Your task to perform on an android device: Play the last video I watched on Youtube Image 0: 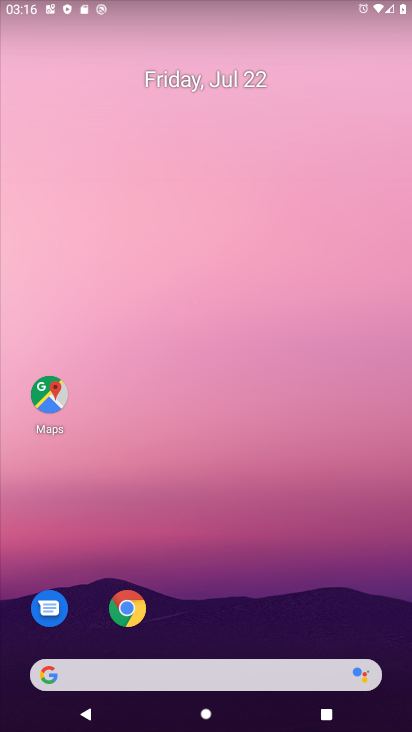
Step 0: drag from (313, 615) to (249, 29)
Your task to perform on an android device: Play the last video I watched on Youtube Image 1: 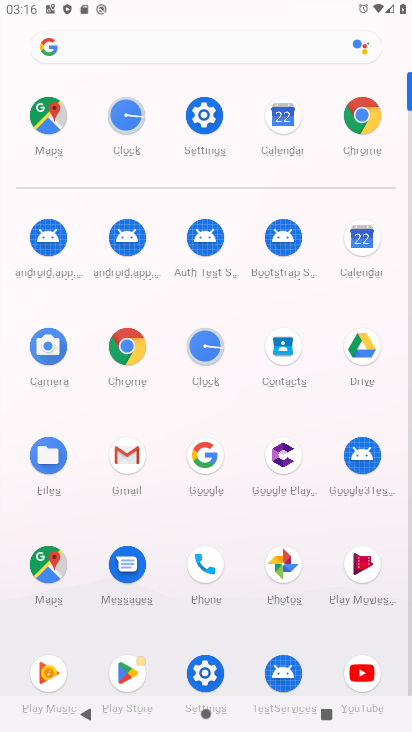
Step 1: click (367, 680)
Your task to perform on an android device: Play the last video I watched on Youtube Image 2: 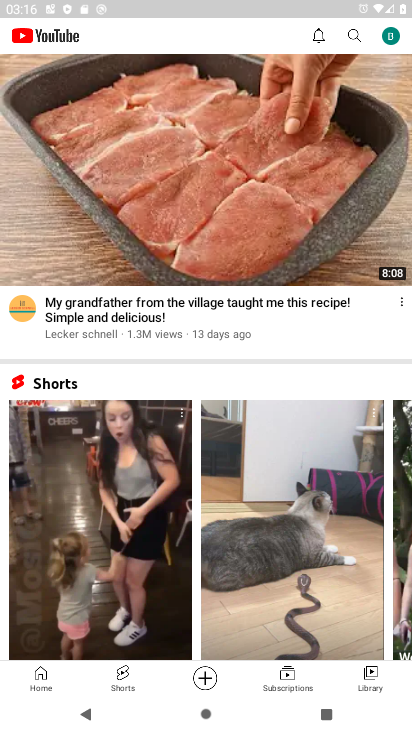
Step 2: click (376, 667)
Your task to perform on an android device: Play the last video I watched on Youtube Image 3: 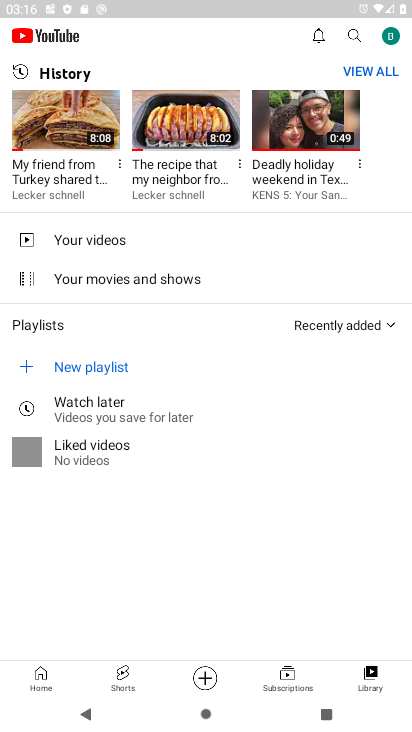
Step 3: click (92, 124)
Your task to perform on an android device: Play the last video I watched on Youtube Image 4: 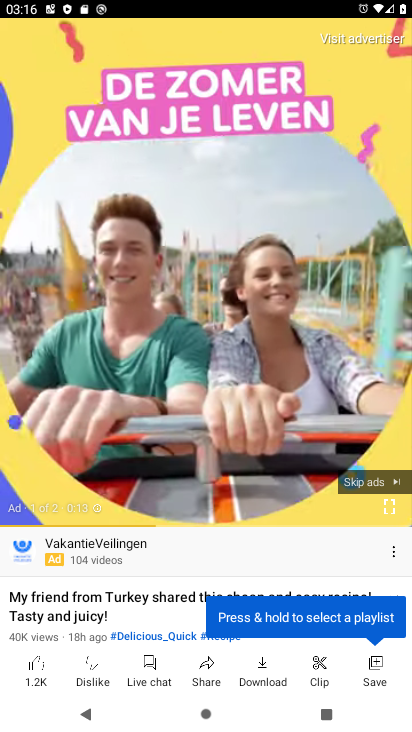
Step 4: task complete